Your task to perform on an android device: Open Yahoo.com Image 0: 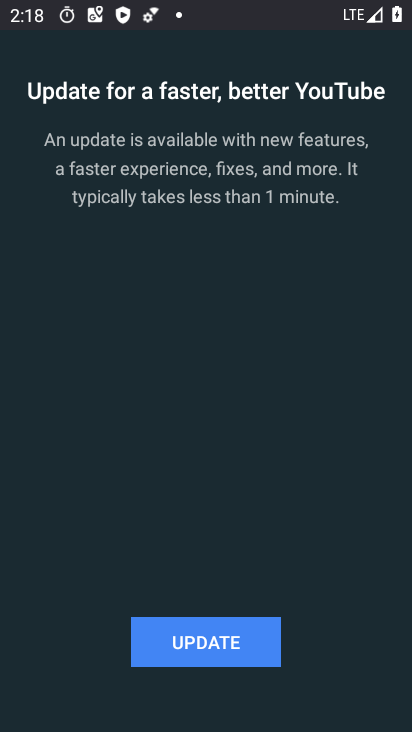
Step 0: press home button
Your task to perform on an android device: Open Yahoo.com Image 1: 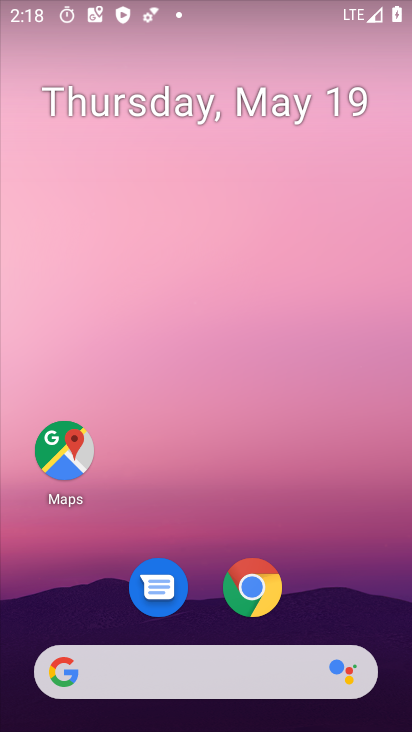
Step 1: click (252, 593)
Your task to perform on an android device: Open Yahoo.com Image 2: 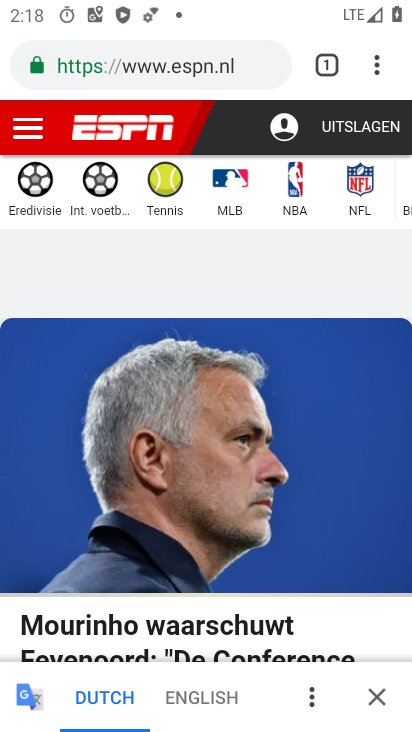
Step 2: click (378, 68)
Your task to perform on an android device: Open Yahoo.com Image 3: 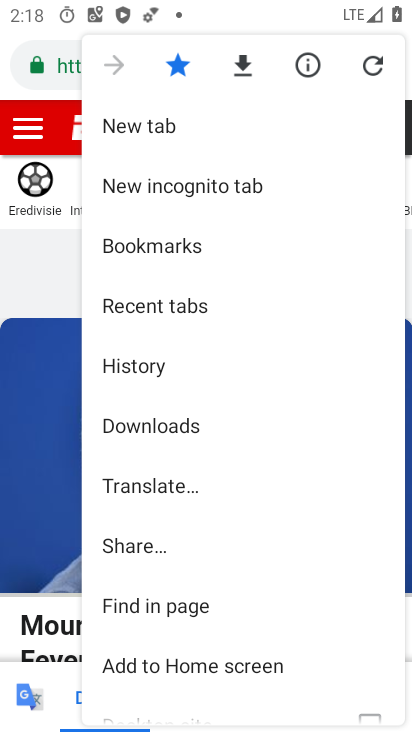
Step 3: click (133, 127)
Your task to perform on an android device: Open Yahoo.com Image 4: 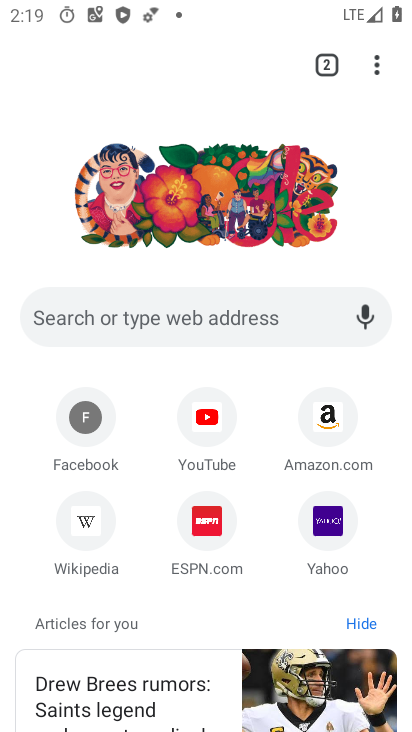
Step 4: click (207, 312)
Your task to perform on an android device: Open Yahoo.com Image 5: 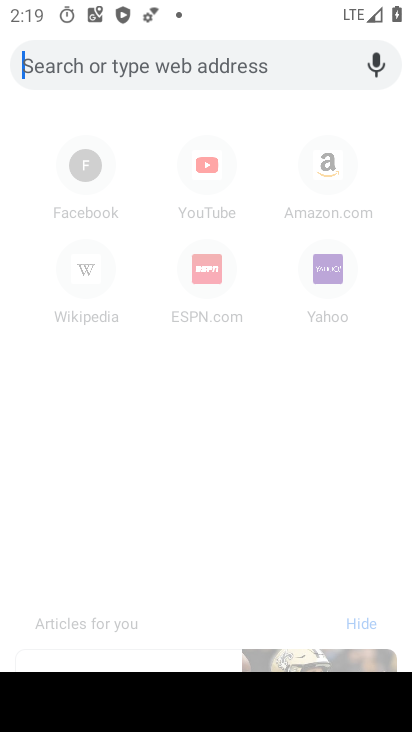
Step 5: type "Yahoo.com"
Your task to perform on an android device: Open Yahoo.com Image 6: 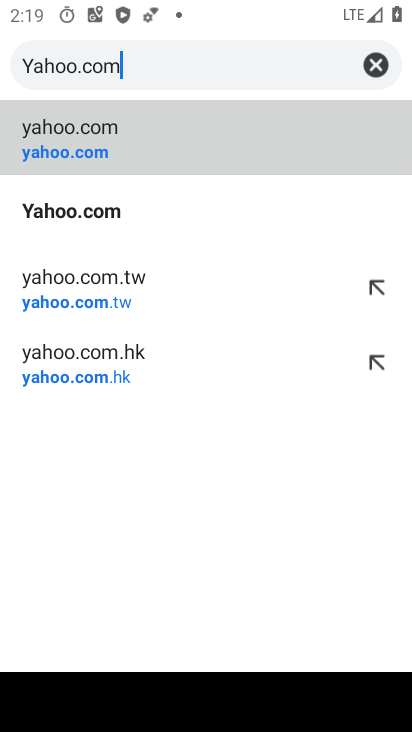
Step 6: click (103, 142)
Your task to perform on an android device: Open Yahoo.com Image 7: 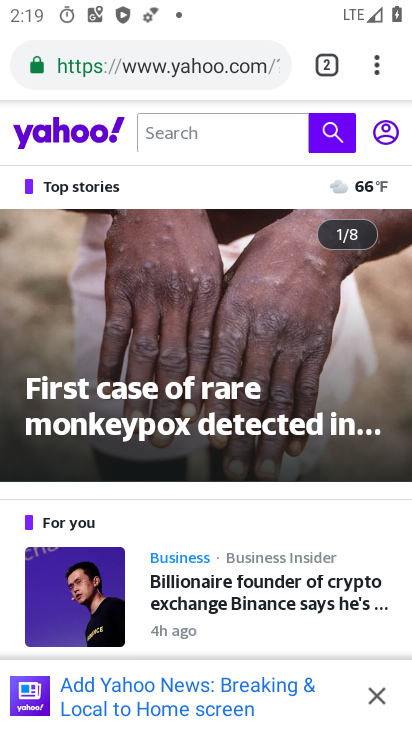
Step 7: task complete